Your task to perform on an android device: turn off sleep mode Image 0: 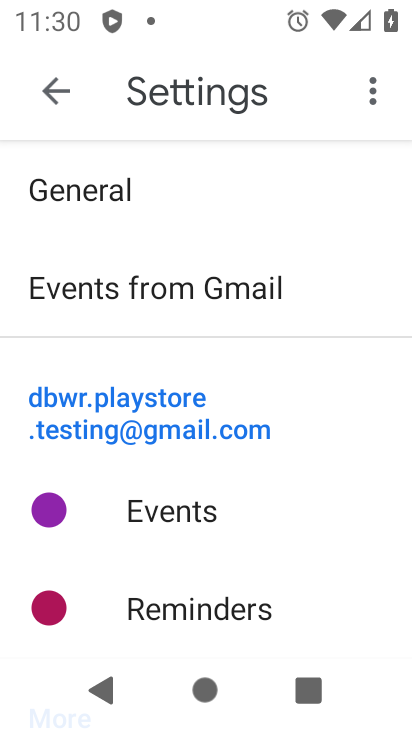
Step 0: click (386, 492)
Your task to perform on an android device: turn off sleep mode Image 1: 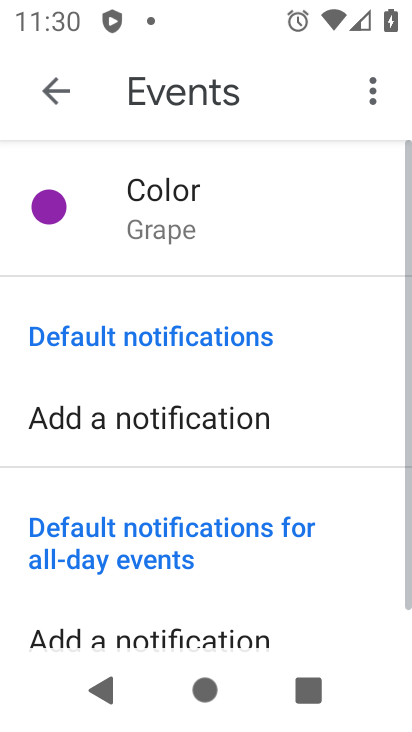
Step 1: press home button
Your task to perform on an android device: turn off sleep mode Image 2: 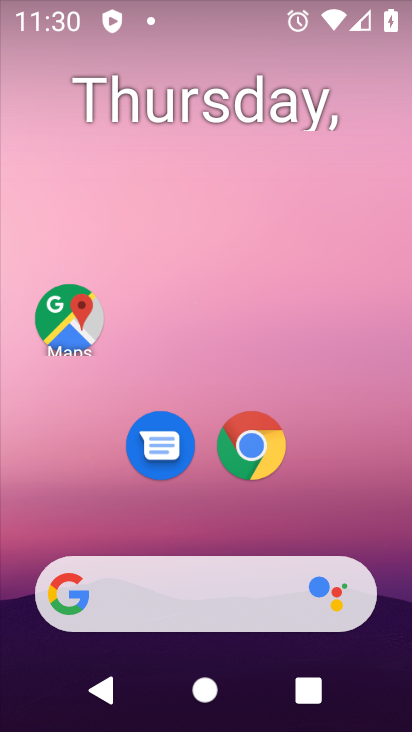
Step 2: drag from (355, 327) to (319, 113)
Your task to perform on an android device: turn off sleep mode Image 3: 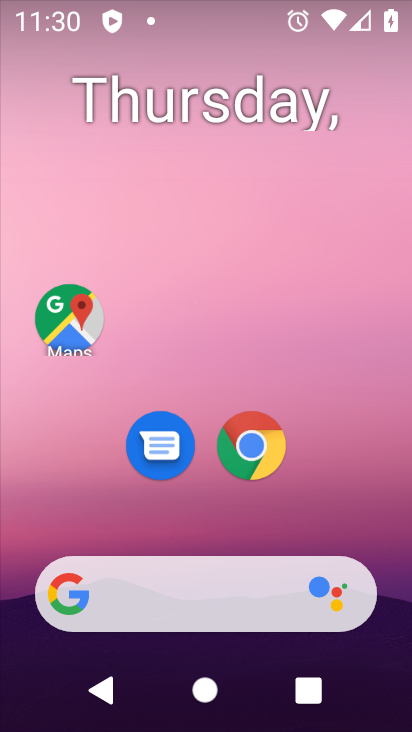
Step 3: drag from (410, 452) to (394, 208)
Your task to perform on an android device: turn off sleep mode Image 4: 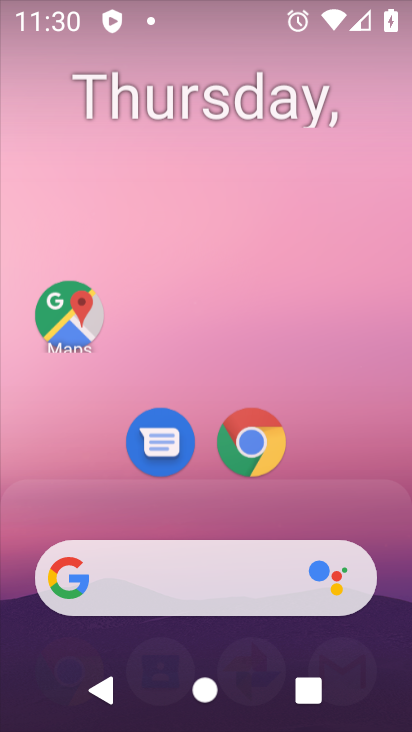
Step 4: drag from (334, 461) to (384, 10)
Your task to perform on an android device: turn off sleep mode Image 5: 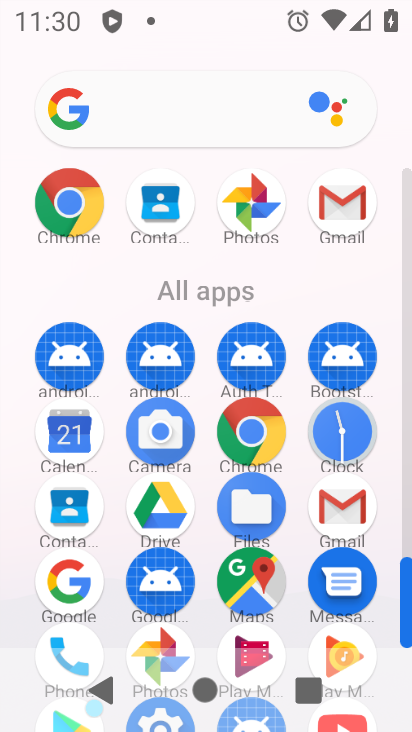
Step 5: drag from (404, 455) to (391, 164)
Your task to perform on an android device: turn off sleep mode Image 6: 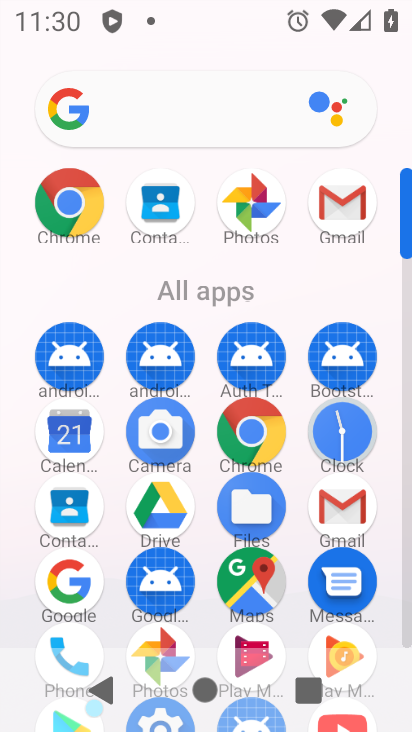
Step 6: drag from (383, 510) to (370, 200)
Your task to perform on an android device: turn off sleep mode Image 7: 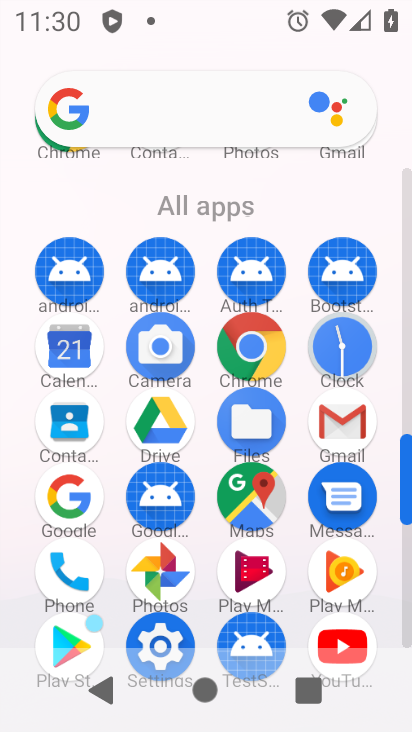
Step 7: click (166, 646)
Your task to perform on an android device: turn off sleep mode Image 8: 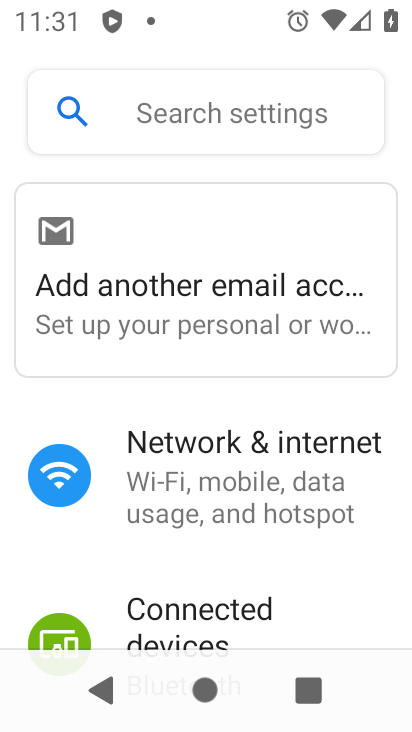
Step 8: drag from (342, 563) to (335, 118)
Your task to perform on an android device: turn off sleep mode Image 9: 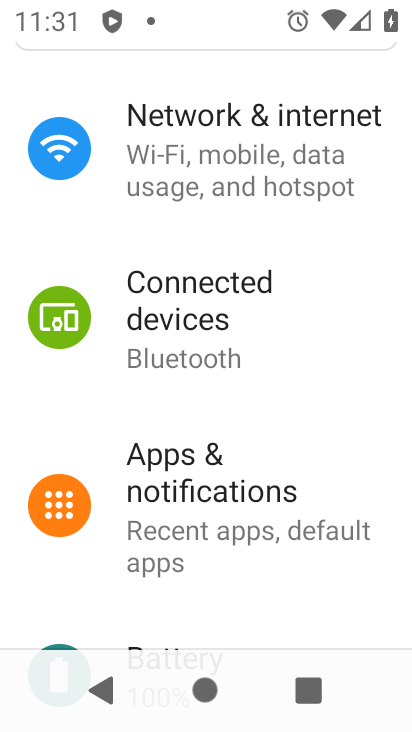
Step 9: drag from (307, 454) to (256, 125)
Your task to perform on an android device: turn off sleep mode Image 10: 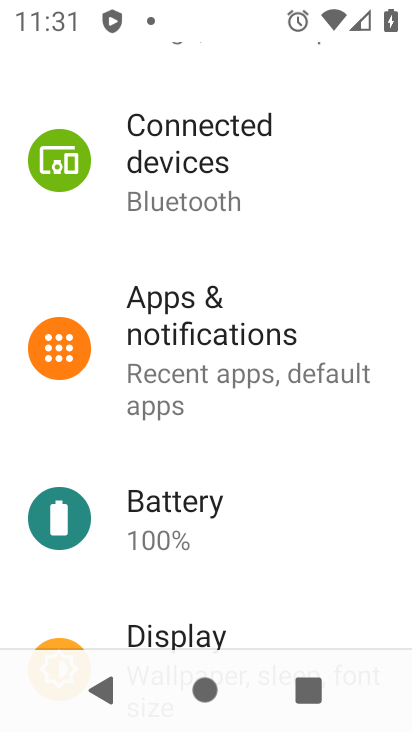
Step 10: drag from (177, 583) to (230, 209)
Your task to perform on an android device: turn off sleep mode Image 11: 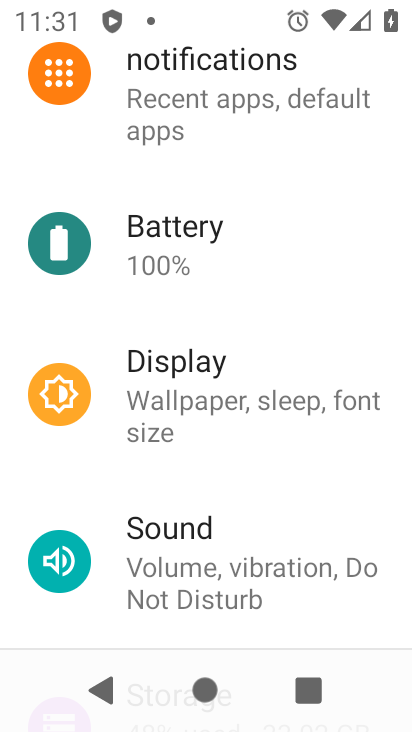
Step 11: click (273, 384)
Your task to perform on an android device: turn off sleep mode Image 12: 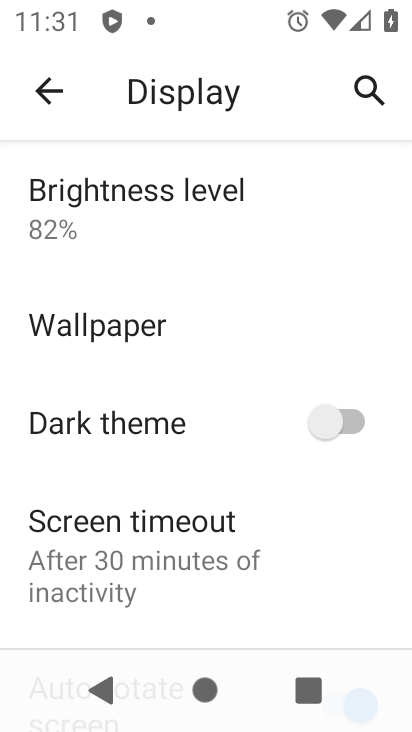
Step 12: click (168, 540)
Your task to perform on an android device: turn off sleep mode Image 13: 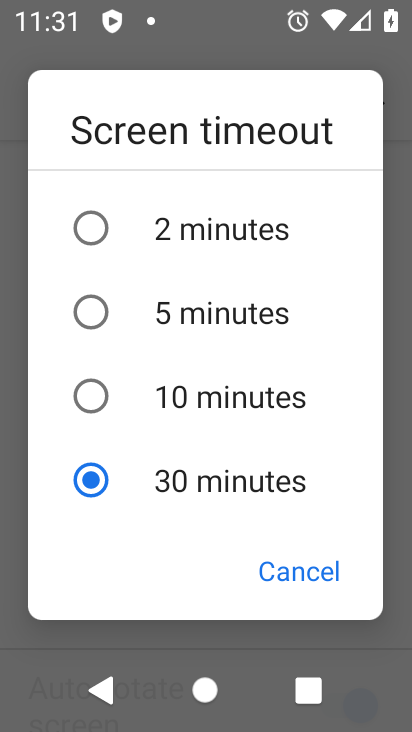
Step 13: click (89, 309)
Your task to perform on an android device: turn off sleep mode Image 14: 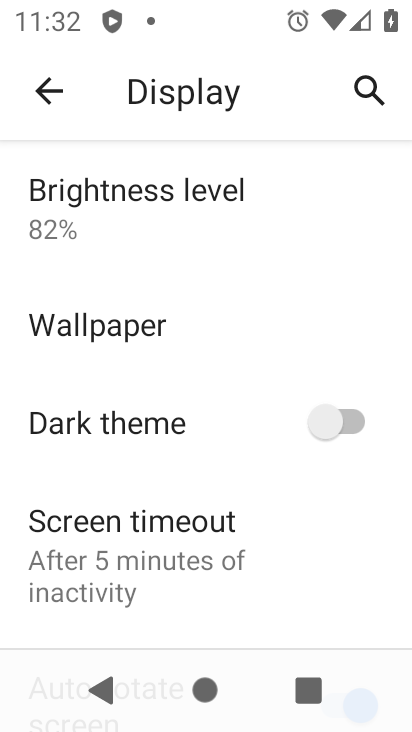
Step 14: task complete